Your task to perform on an android device: toggle airplane mode Image 0: 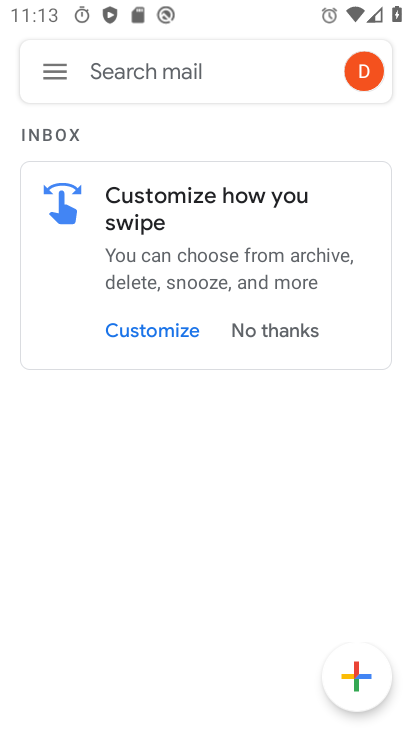
Step 0: press back button
Your task to perform on an android device: toggle airplane mode Image 1: 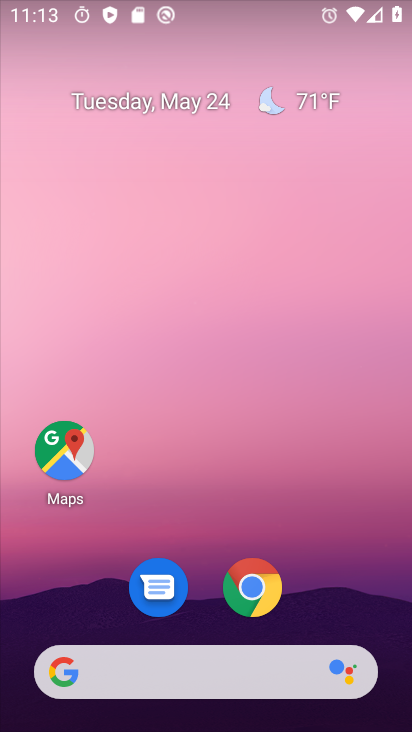
Step 1: drag from (336, 673) to (220, 92)
Your task to perform on an android device: toggle airplane mode Image 2: 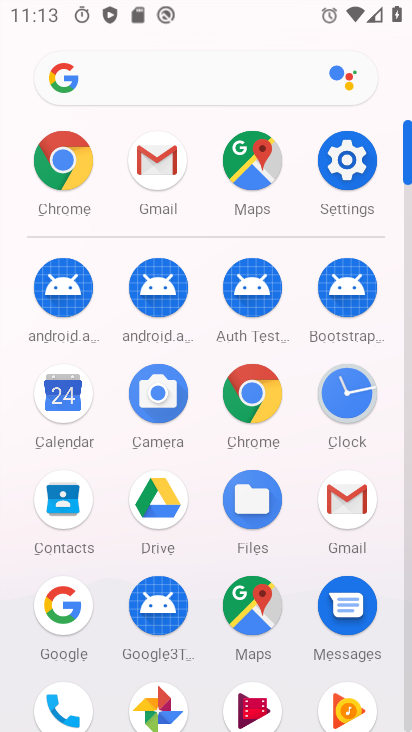
Step 2: click (349, 168)
Your task to perform on an android device: toggle airplane mode Image 3: 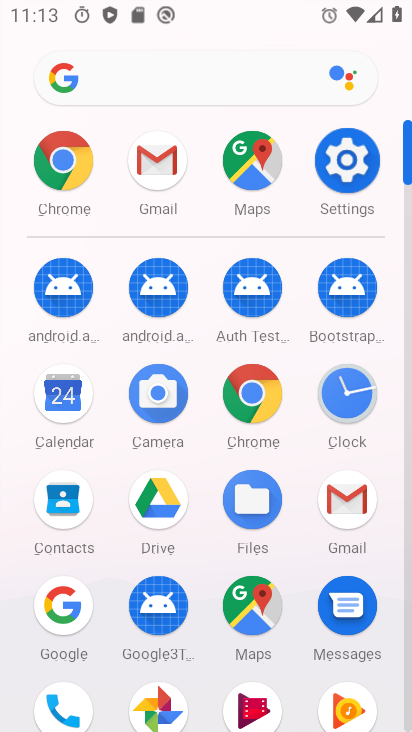
Step 3: click (351, 166)
Your task to perform on an android device: toggle airplane mode Image 4: 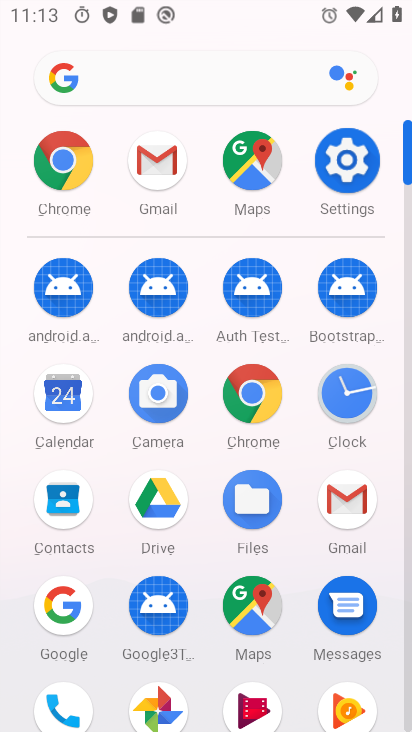
Step 4: click (351, 165)
Your task to perform on an android device: toggle airplane mode Image 5: 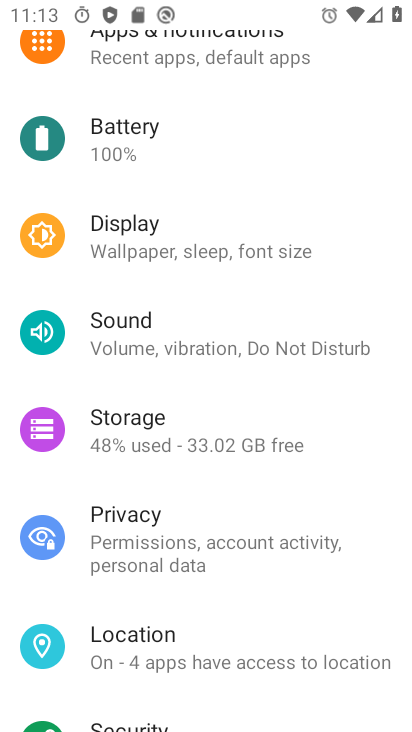
Step 5: drag from (222, 494) to (222, 98)
Your task to perform on an android device: toggle airplane mode Image 6: 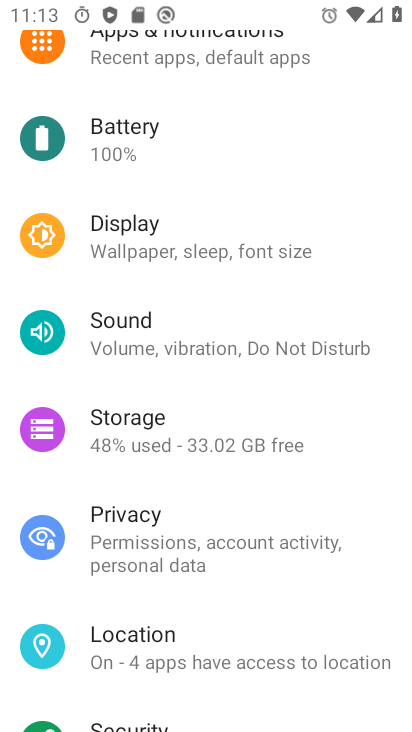
Step 6: drag from (249, 408) to (249, 94)
Your task to perform on an android device: toggle airplane mode Image 7: 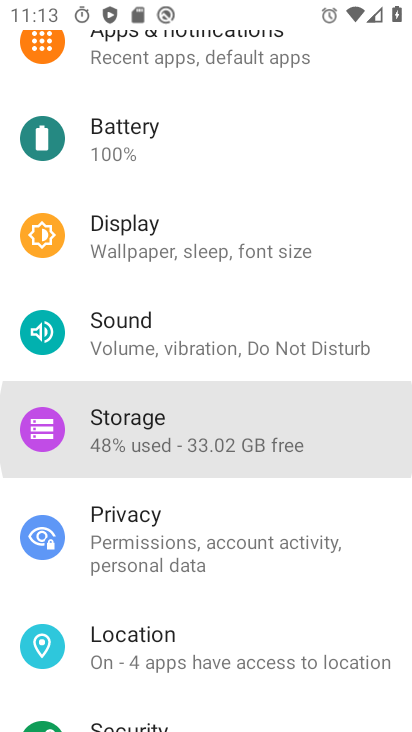
Step 7: drag from (236, 456) to (235, 136)
Your task to perform on an android device: toggle airplane mode Image 8: 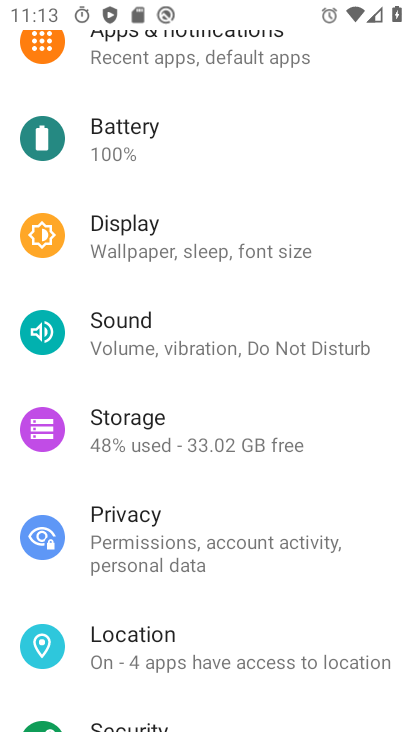
Step 8: drag from (173, 181) to (209, 427)
Your task to perform on an android device: toggle airplane mode Image 9: 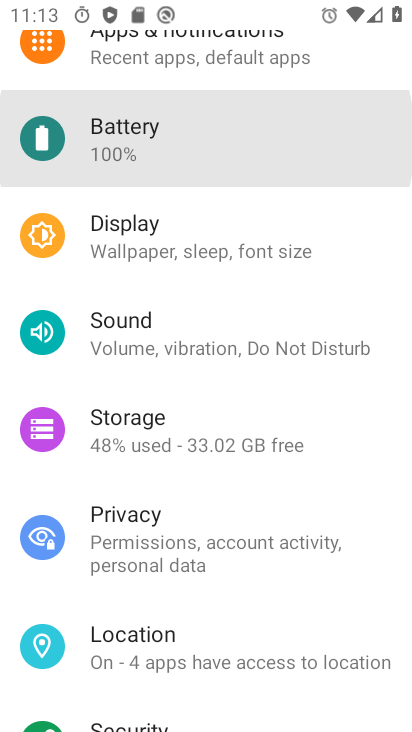
Step 9: drag from (166, 111) to (180, 453)
Your task to perform on an android device: toggle airplane mode Image 10: 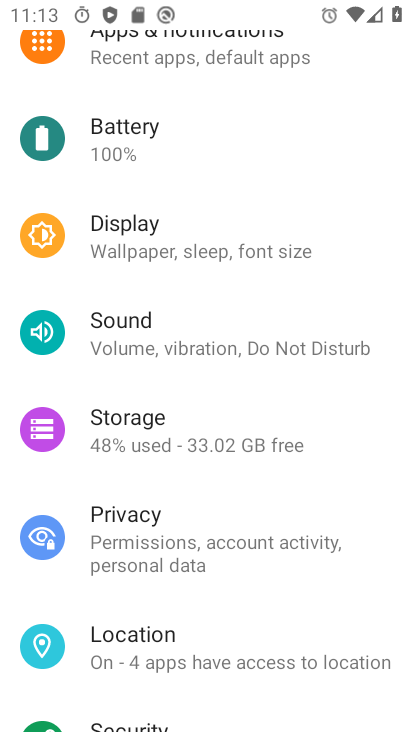
Step 10: drag from (144, 157) to (195, 526)
Your task to perform on an android device: toggle airplane mode Image 11: 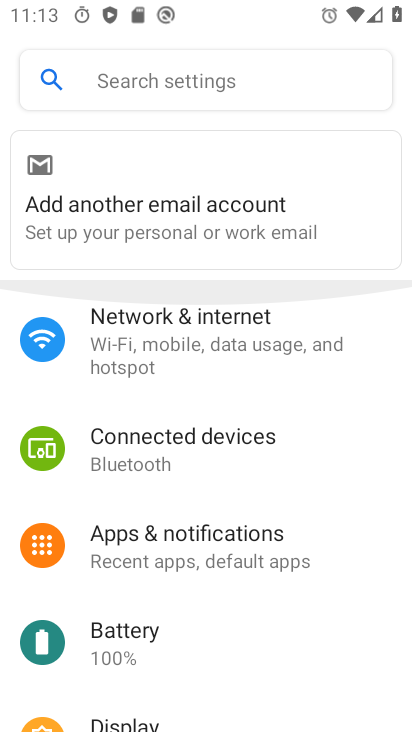
Step 11: drag from (189, 277) to (255, 476)
Your task to perform on an android device: toggle airplane mode Image 12: 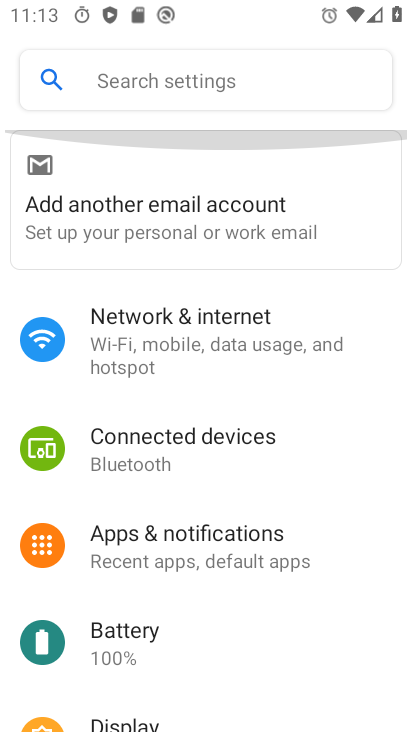
Step 12: drag from (241, 184) to (252, 484)
Your task to perform on an android device: toggle airplane mode Image 13: 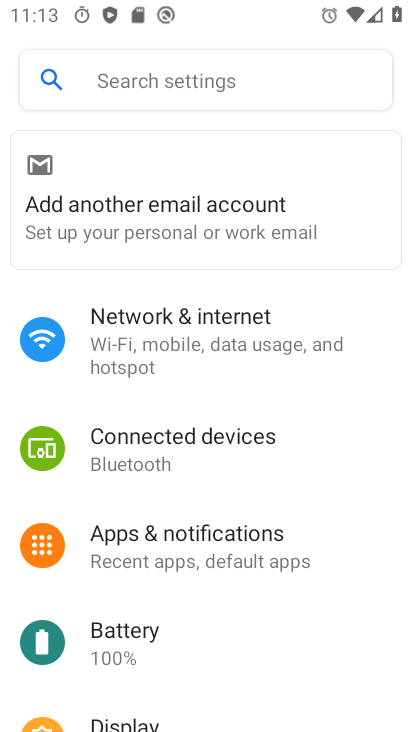
Step 13: click (177, 330)
Your task to perform on an android device: toggle airplane mode Image 14: 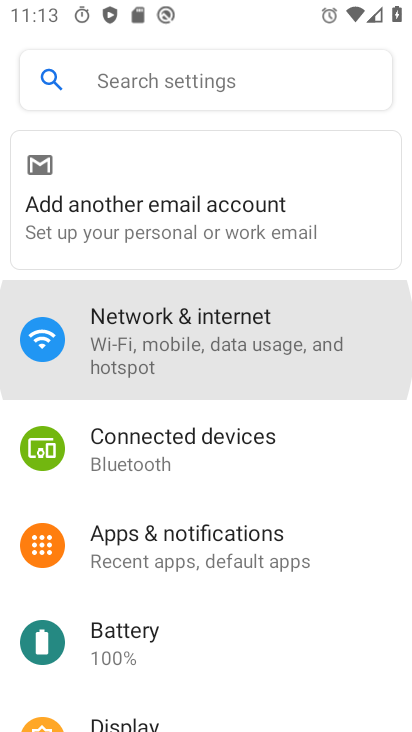
Step 14: click (180, 330)
Your task to perform on an android device: toggle airplane mode Image 15: 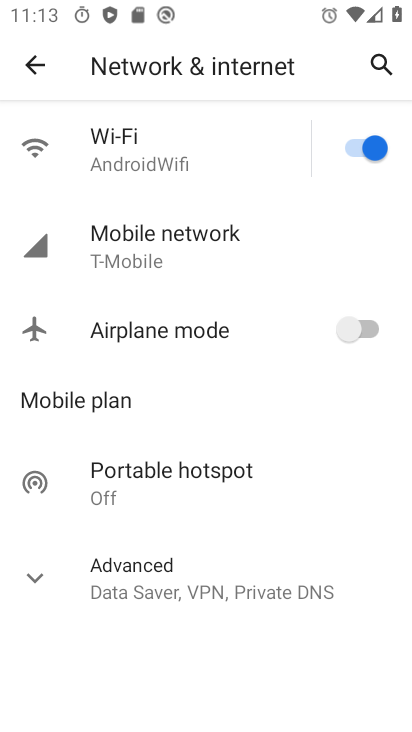
Step 15: click (359, 323)
Your task to perform on an android device: toggle airplane mode Image 16: 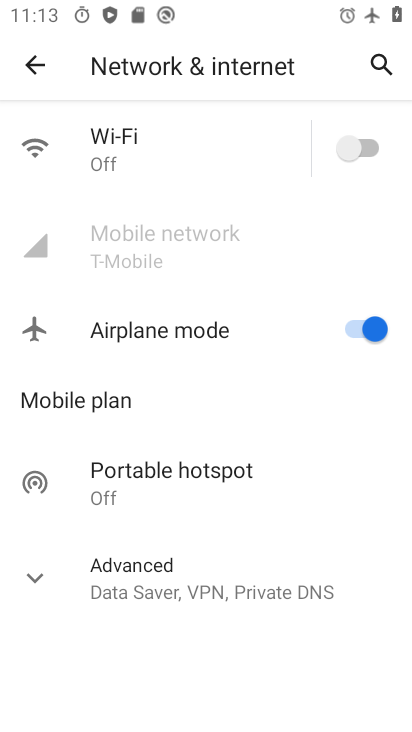
Step 16: task complete